Your task to perform on an android device: find which apps use the phone's location Image 0: 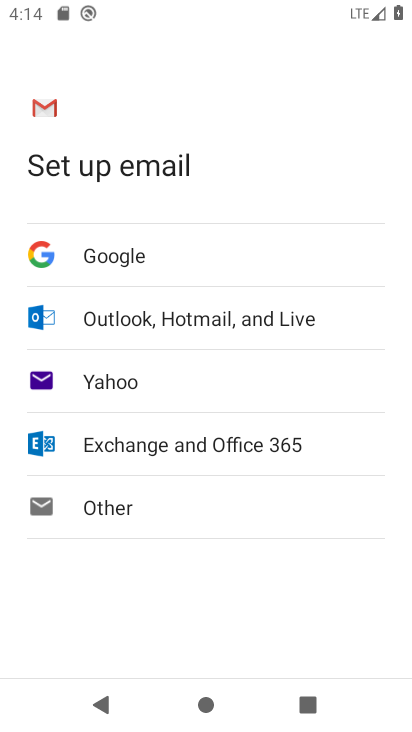
Step 0: press home button
Your task to perform on an android device: find which apps use the phone's location Image 1: 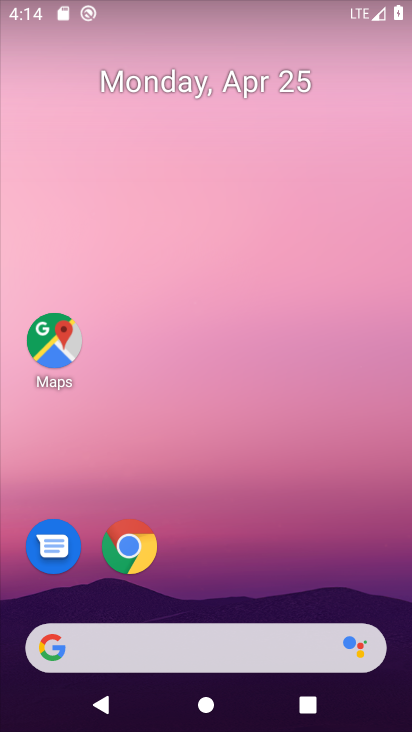
Step 1: drag from (275, 554) to (284, 54)
Your task to perform on an android device: find which apps use the phone's location Image 2: 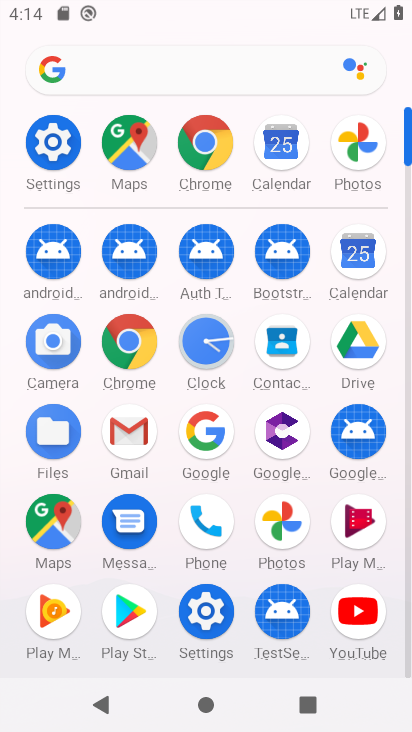
Step 2: click (51, 144)
Your task to perform on an android device: find which apps use the phone's location Image 3: 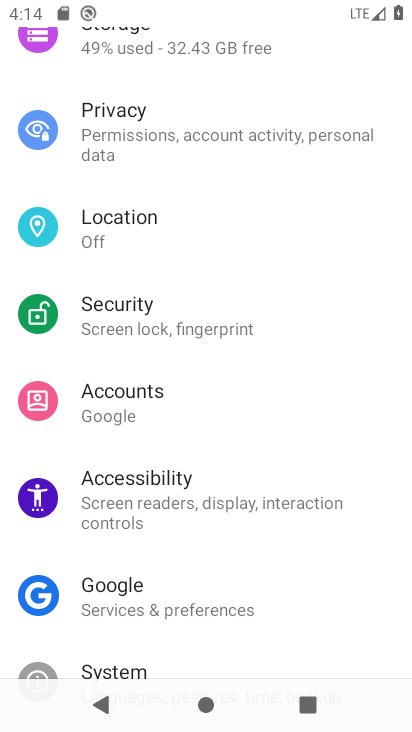
Step 3: click (174, 239)
Your task to perform on an android device: find which apps use the phone's location Image 4: 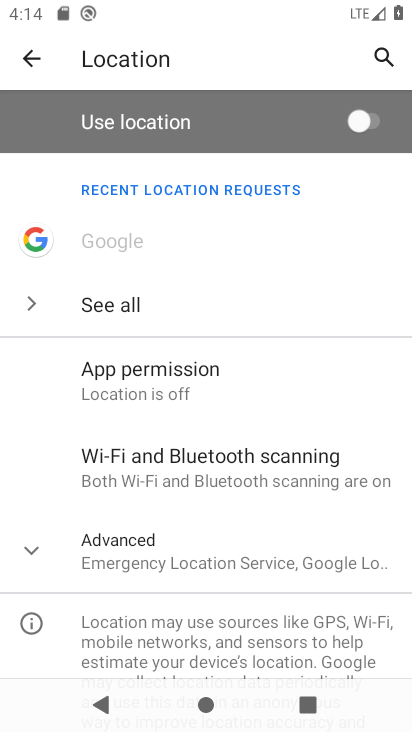
Step 4: click (211, 376)
Your task to perform on an android device: find which apps use the phone's location Image 5: 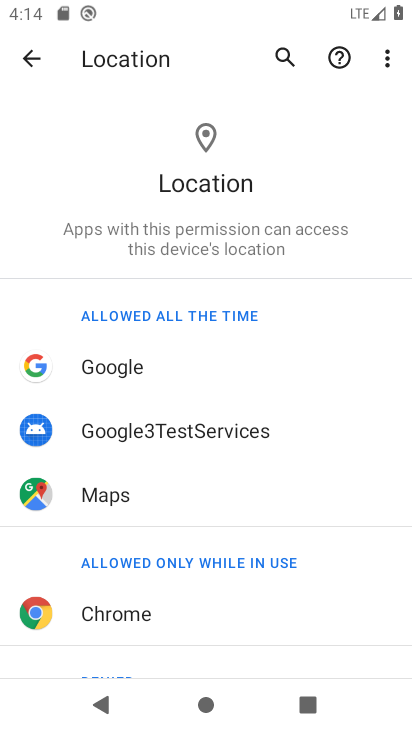
Step 5: task complete